Your task to perform on an android device: Do I have any events today? Image 0: 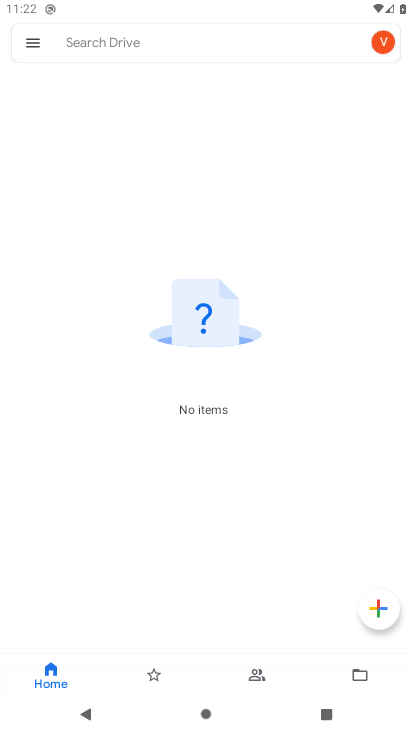
Step 0: press home button
Your task to perform on an android device: Do I have any events today? Image 1: 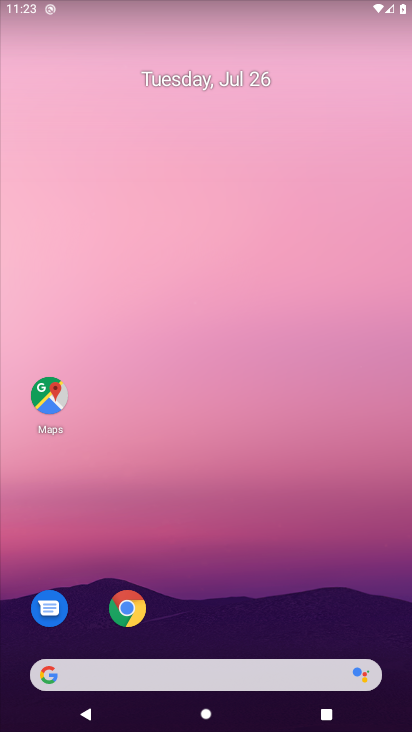
Step 1: drag from (241, 568) to (304, 10)
Your task to perform on an android device: Do I have any events today? Image 2: 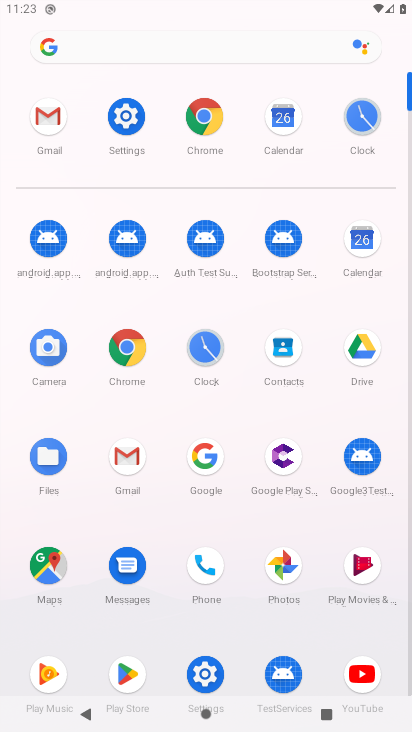
Step 2: click (367, 260)
Your task to perform on an android device: Do I have any events today? Image 3: 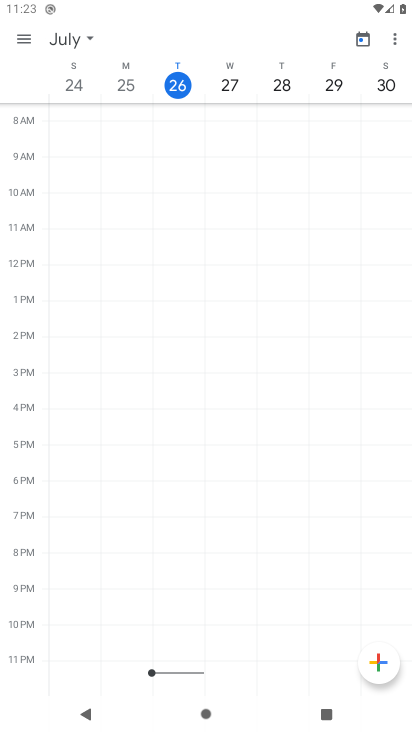
Step 3: click (177, 90)
Your task to perform on an android device: Do I have any events today? Image 4: 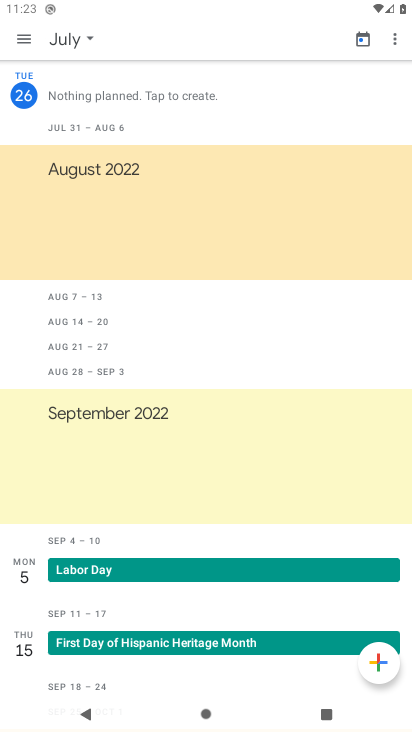
Step 4: task complete